Your task to perform on an android device: uninstall "Speedtest by Ookla" Image 0: 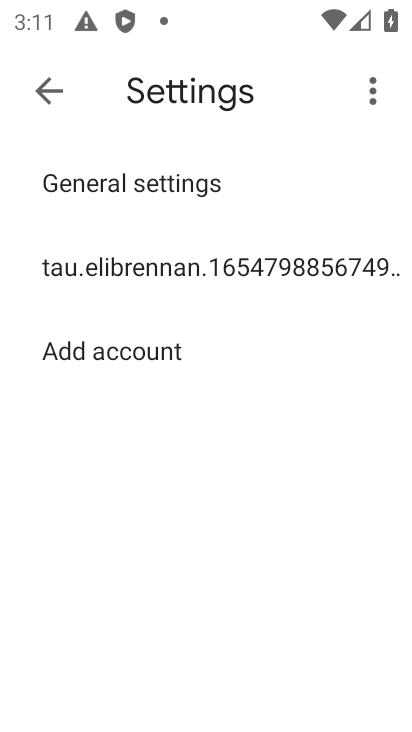
Step 0: press home button
Your task to perform on an android device: uninstall "Speedtest by Ookla" Image 1: 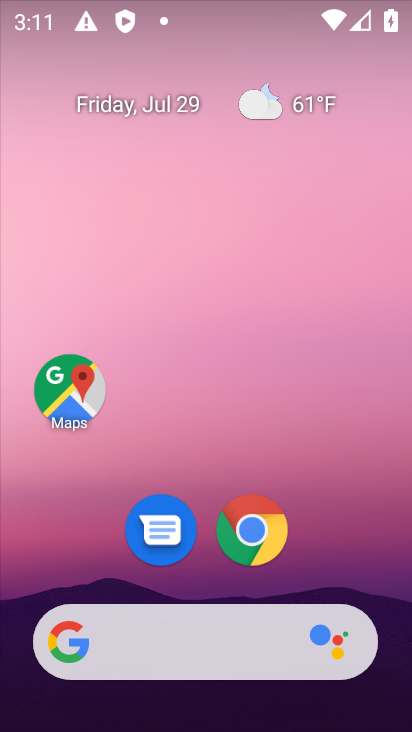
Step 1: drag from (335, 567) to (321, 3)
Your task to perform on an android device: uninstall "Speedtest by Ookla" Image 2: 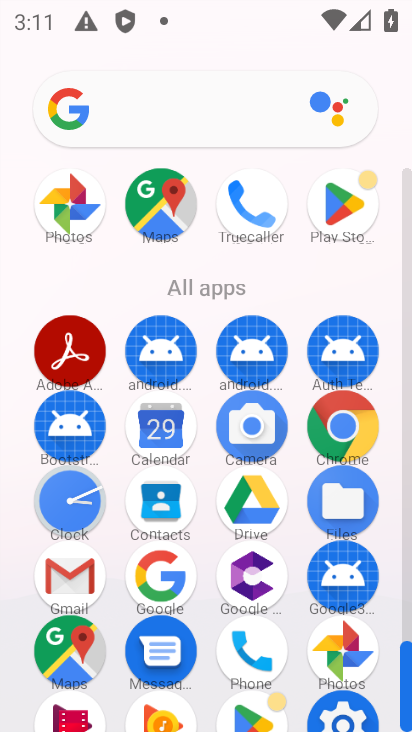
Step 2: click (337, 209)
Your task to perform on an android device: uninstall "Speedtest by Ookla" Image 3: 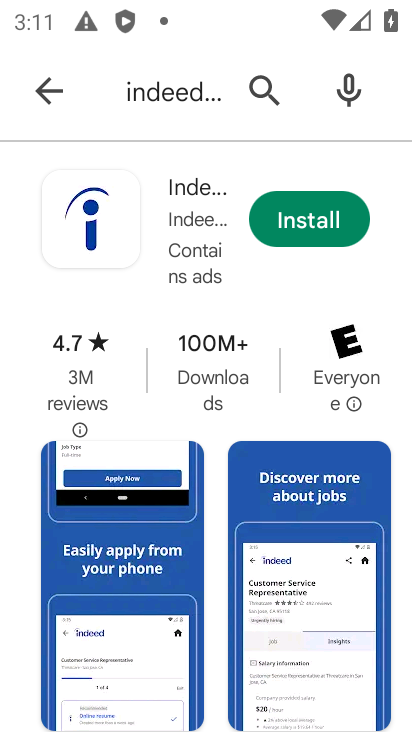
Step 3: click (257, 91)
Your task to perform on an android device: uninstall "Speedtest by Ookla" Image 4: 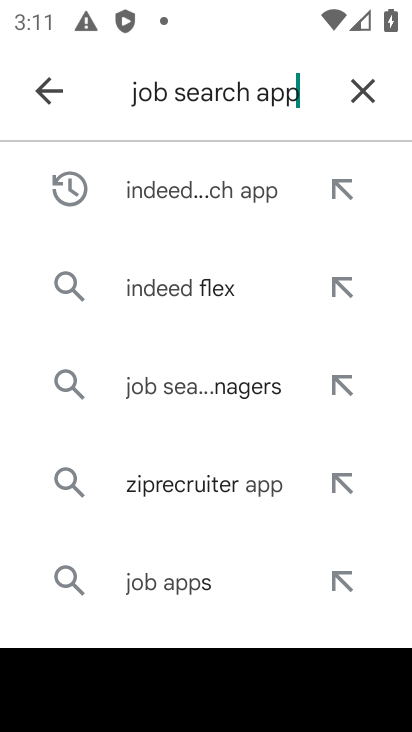
Step 4: click (362, 96)
Your task to perform on an android device: uninstall "Speedtest by Ookla" Image 5: 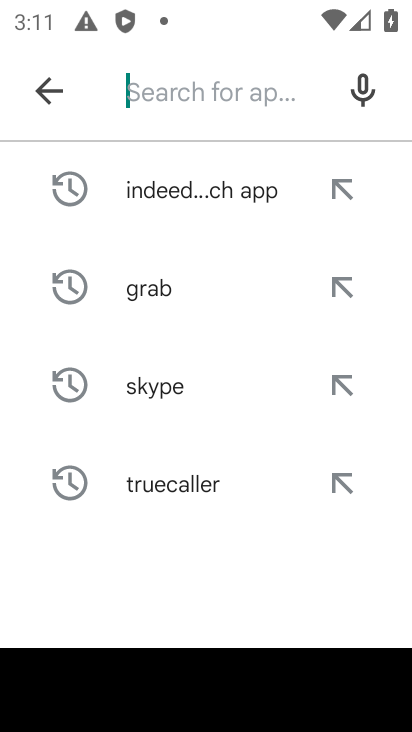
Step 5: click (179, 102)
Your task to perform on an android device: uninstall "Speedtest by Ookla" Image 6: 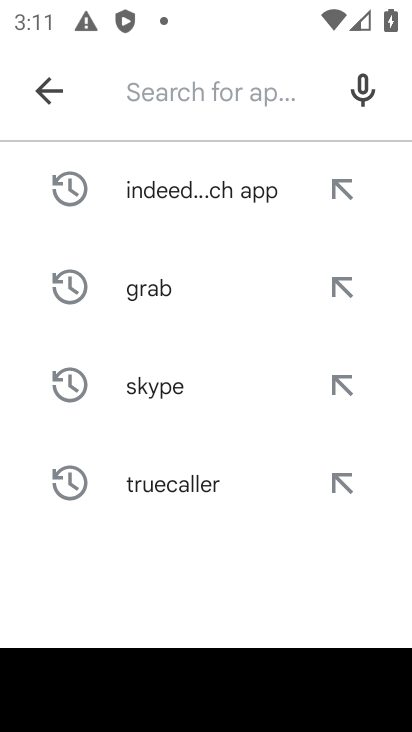
Step 6: type "Speedtest by Ookla"
Your task to perform on an android device: uninstall "Speedtest by Ookla" Image 7: 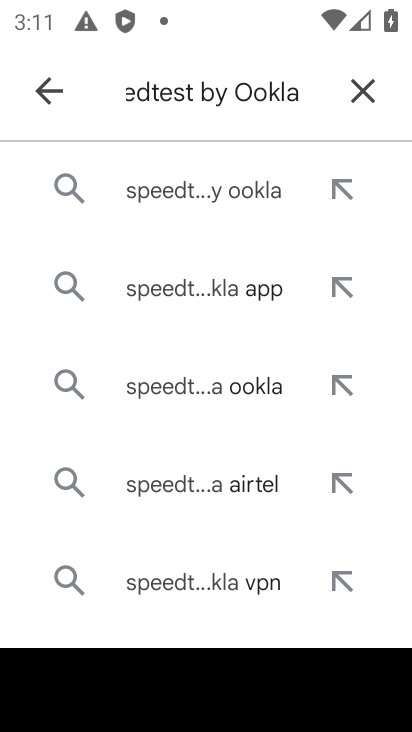
Step 7: click (182, 191)
Your task to perform on an android device: uninstall "Speedtest by Ookla" Image 8: 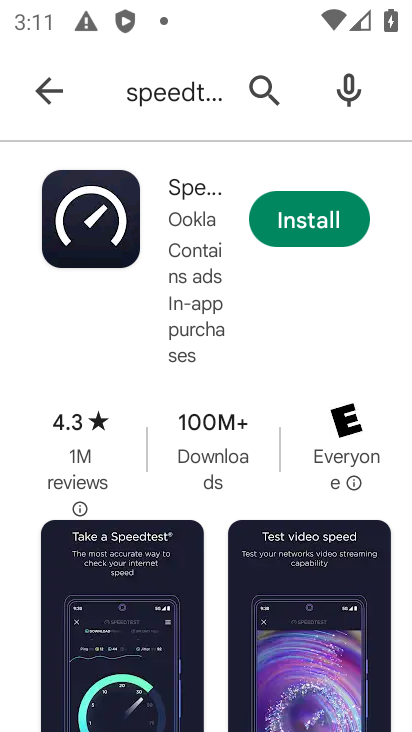
Step 8: task complete